Your task to perform on an android device: turn off javascript in the chrome app Image 0: 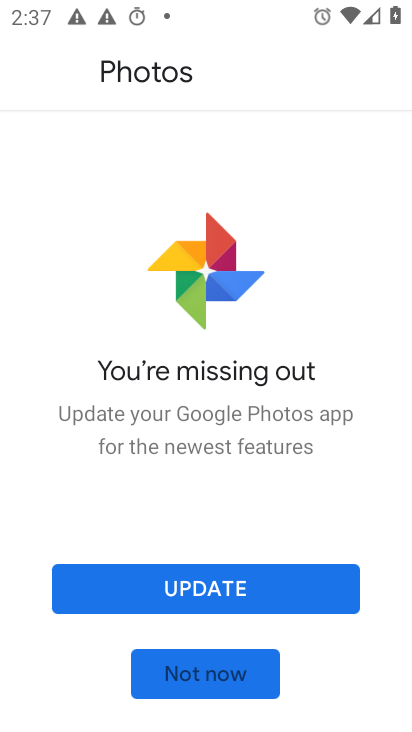
Step 0: press home button
Your task to perform on an android device: turn off javascript in the chrome app Image 1: 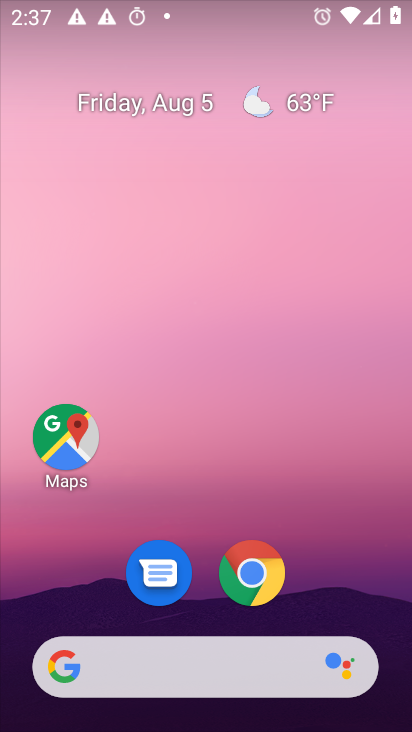
Step 1: drag from (355, 593) to (369, 275)
Your task to perform on an android device: turn off javascript in the chrome app Image 2: 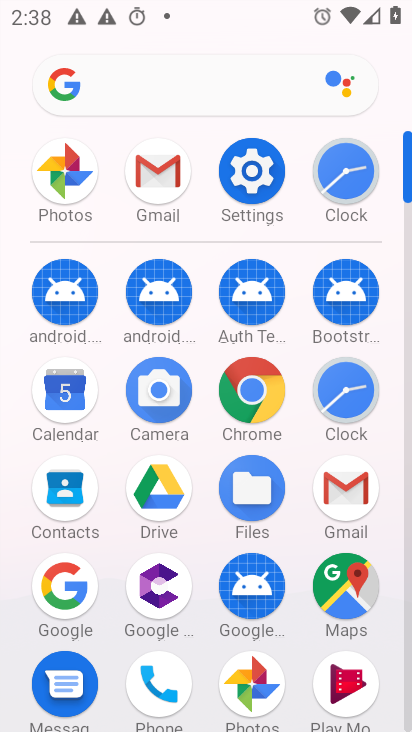
Step 2: click (243, 384)
Your task to perform on an android device: turn off javascript in the chrome app Image 3: 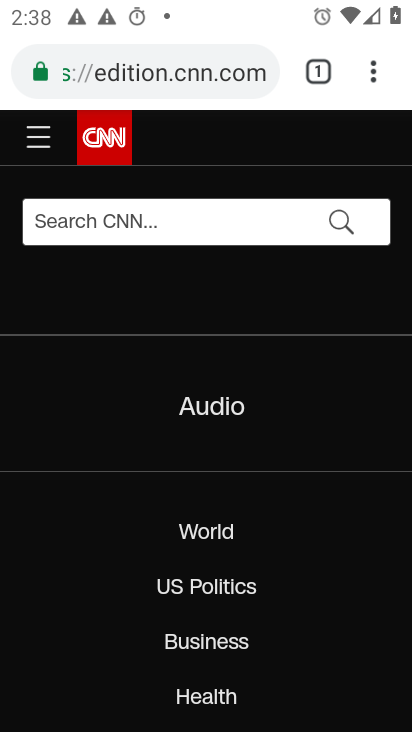
Step 3: click (371, 66)
Your task to perform on an android device: turn off javascript in the chrome app Image 4: 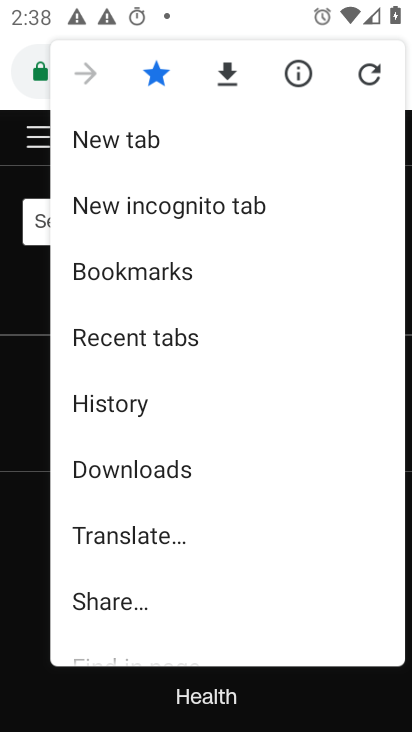
Step 4: drag from (310, 465) to (304, 309)
Your task to perform on an android device: turn off javascript in the chrome app Image 5: 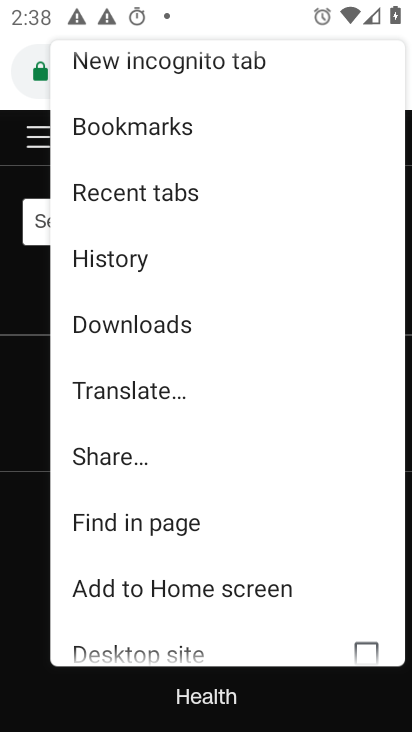
Step 5: drag from (290, 493) to (292, 351)
Your task to perform on an android device: turn off javascript in the chrome app Image 6: 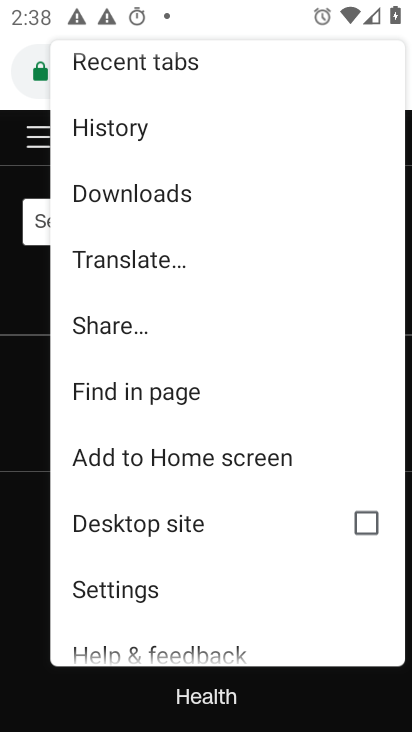
Step 6: click (255, 587)
Your task to perform on an android device: turn off javascript in the chrome app Image 7: 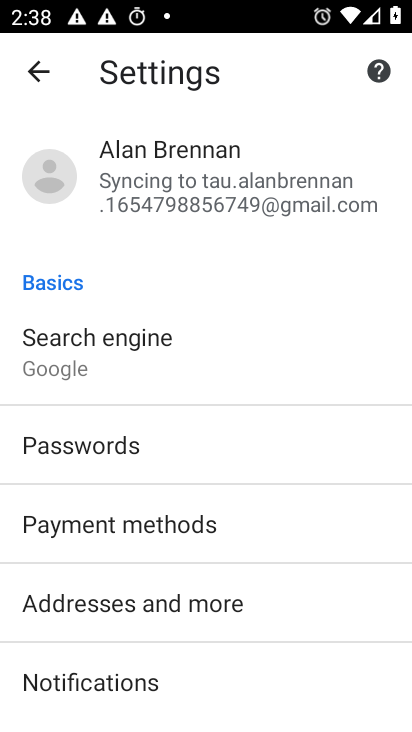
Step 7: drag from (316, 449) to (324, 327)
Your task to perform on an android device: turn off javascript in the chrome app Image 8: 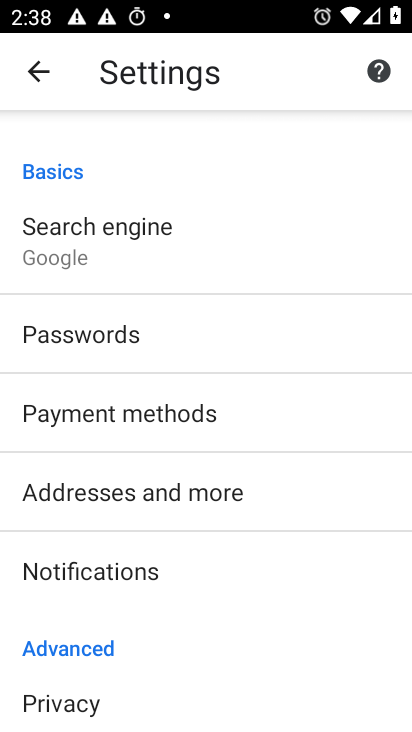
Step 8: drag from (302, 536) to (305, 421)
Your task to perform on an android device: turn off javascript in the chrome app Image 9: 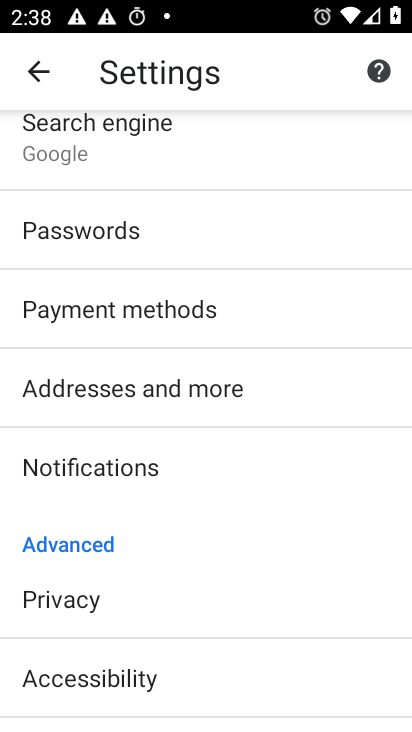
Step 9: drag from (325, 534) to (322, 349)
Your task to perform on an android device: turn off javascript in the chrome app Image 10: 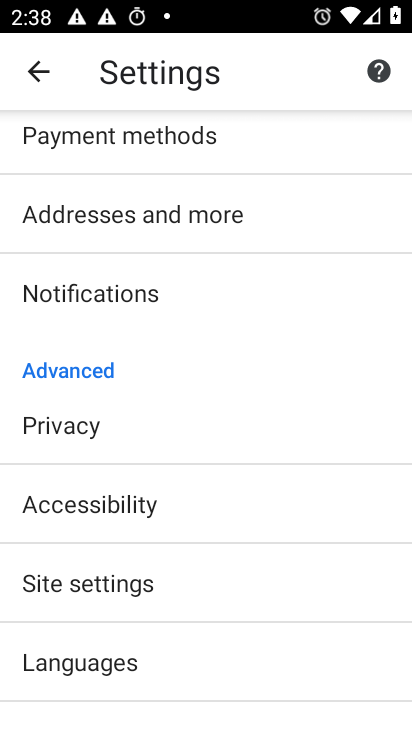
Step 10: click (279, 571)
Your task to perform on an android device: turn off javascript in the chrome app Image 11: 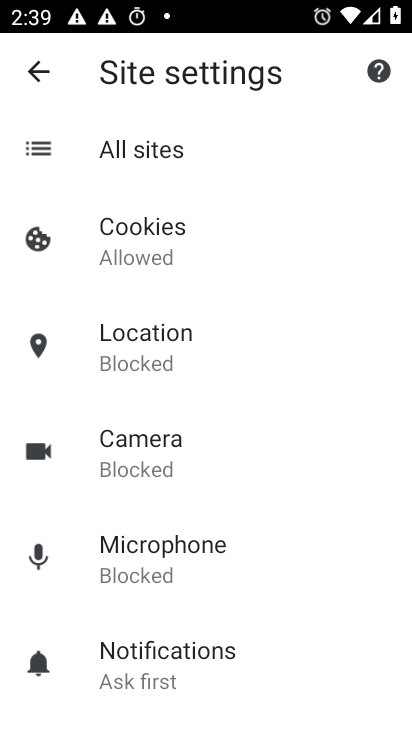
Step 11: drag from (293, 577) to (295, 401)
Your task to perform on an android device: turn off javascript in the chrome app Image 12: 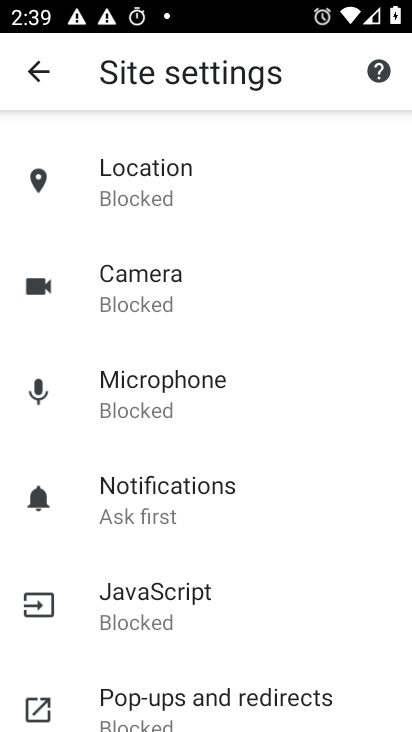
Step 12: drag from (268, 584) to (300, 446)
Your task to perform on an android device: turn off javascript in the chrome app Image 13: 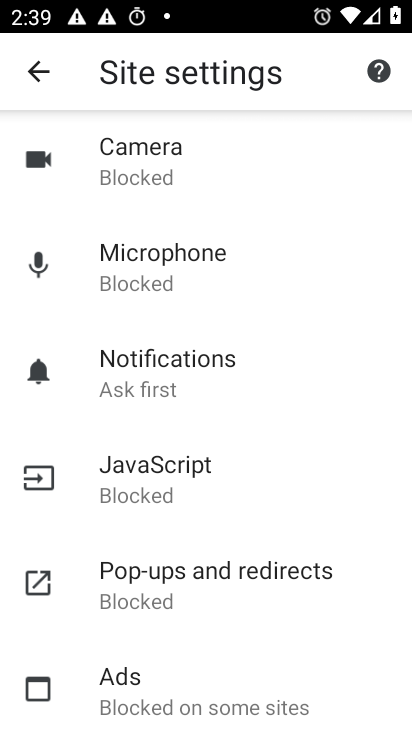
Step 13: click (278, 483)
Your task to perform on an android device: turn off javascript in the chrome app Image 14: 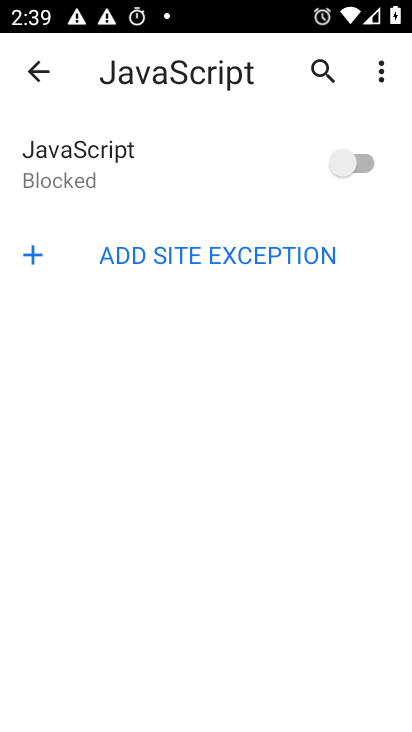
Step 14: task complete